Your task to perform on an android device: create a new album in the google photos Image 0: 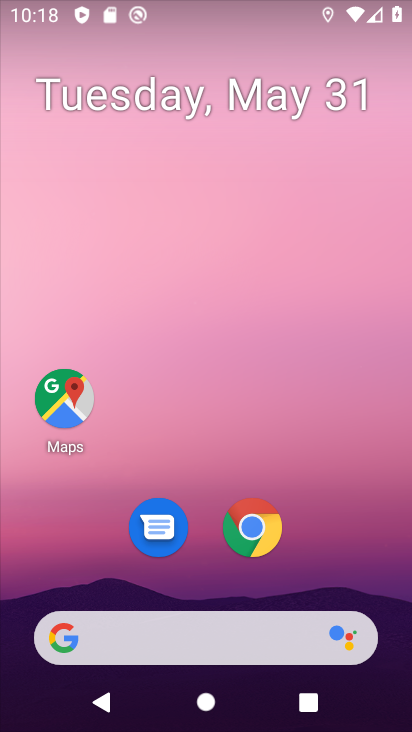
Step 0: drag from (399, 599) to (302, 143)
Your task to perform on an android device: create a new album in the google photos Image 1: 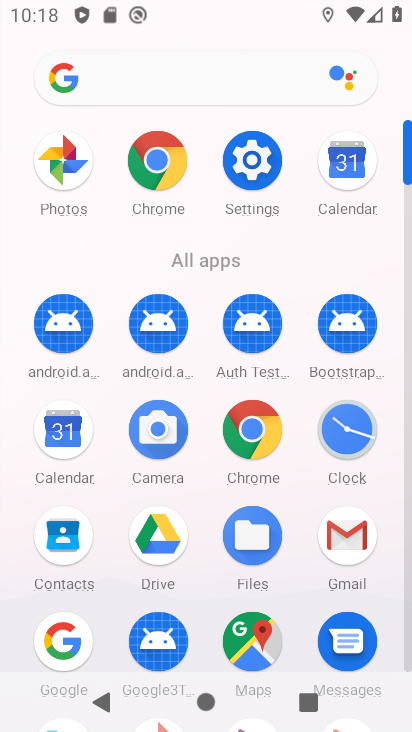
Step 1: click (54, 171)
Your task to perform on an android device: create a new album in the google photos Image 2: 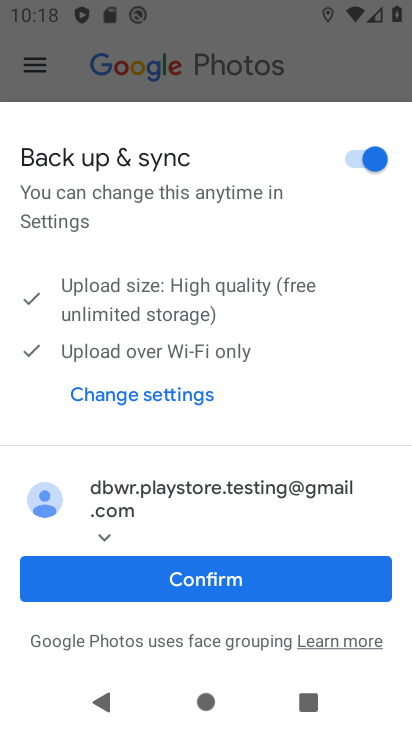
Step 2: click (254, 569)
Your task to perform on an android device: create a new album in the google photos Image 3: 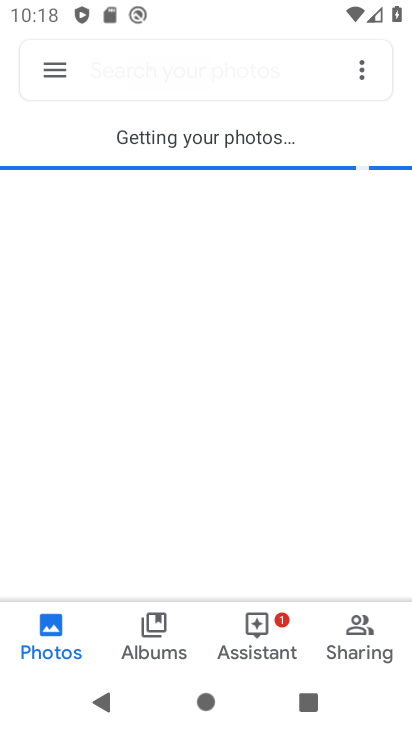
Step 3: click (291, 632)
Your task to perform on an android device: create a new album in the google photos Image 4: 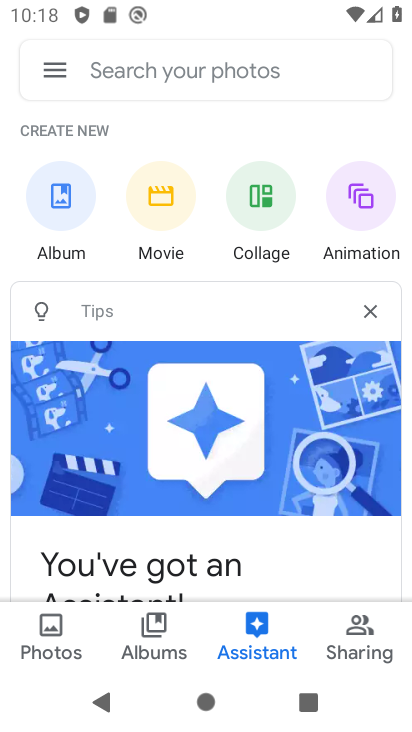
Step 4: click (61, 210)
Your task to perform on an android device: create a new album in the google photos Image 5: 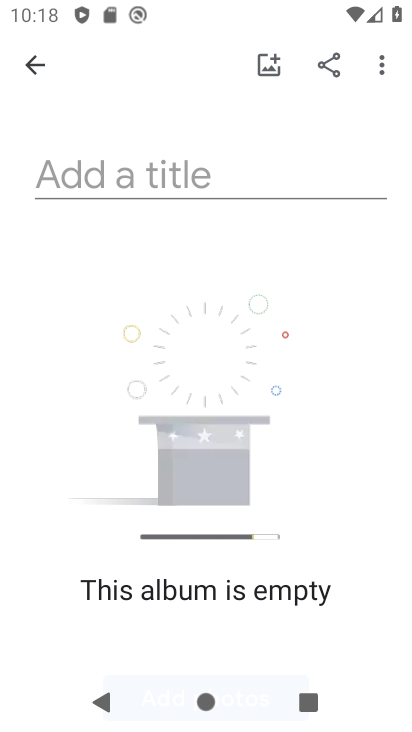
Step 5: click (147, 175)
Your task to perform on an android device: create a new album in the google photos Image 6: 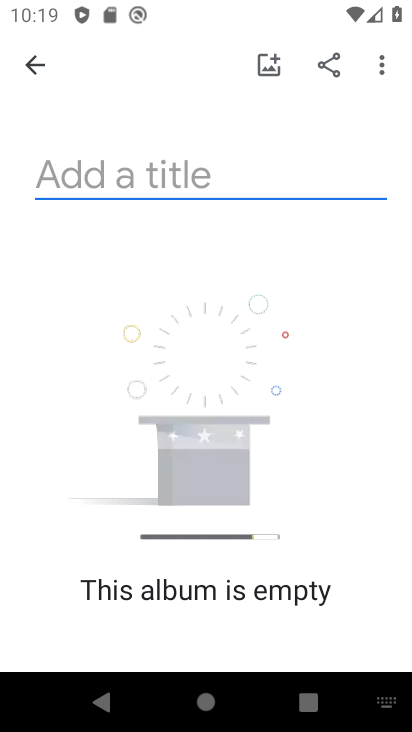
Step 6: type "bbkbhk"
Your task to perform on an android device: create a new album in the google photos Image 7: 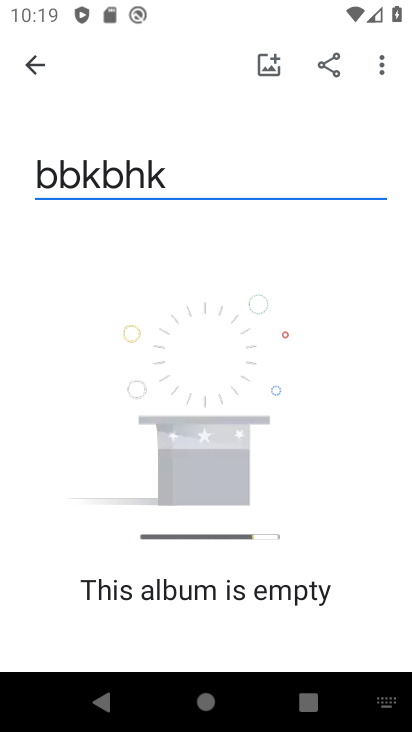
Step 7: click (276, 75)
Your task to perform on an android device: create a new album in the google photos Image 8: 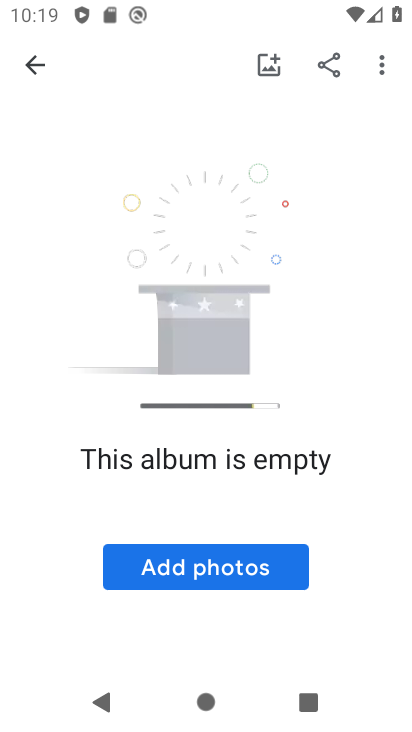
Step 8: click (198, 559)
Your task to perform on an android device: create a new album in the google photos Image 9: 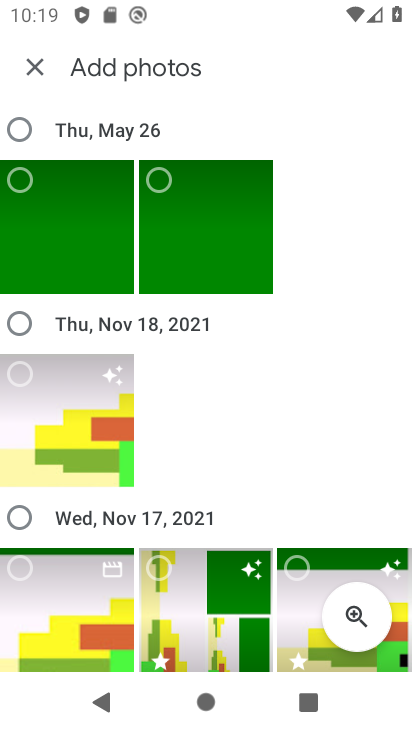
Step 9: click (202, 277)
Your task to perform on an android device: create a new album in the google photos Image 10: 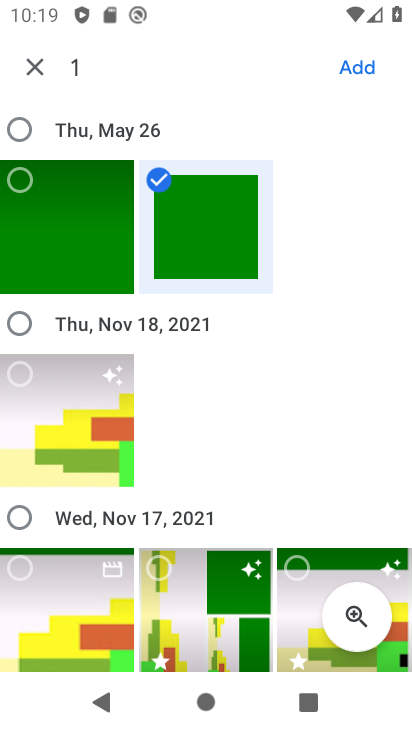
Step 10: click (366, 71)
Your task to perform on an android device: create a new album in the google photos Image 11: 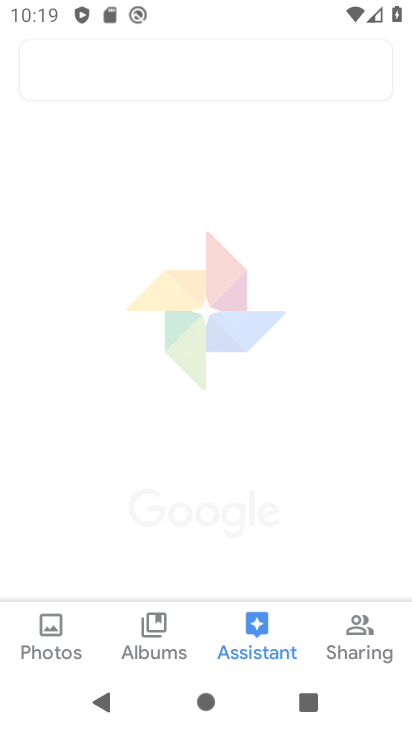
Step 11: task complete